Your task to perform on an android device: turn off priority inbox in the gmail app Image 0: 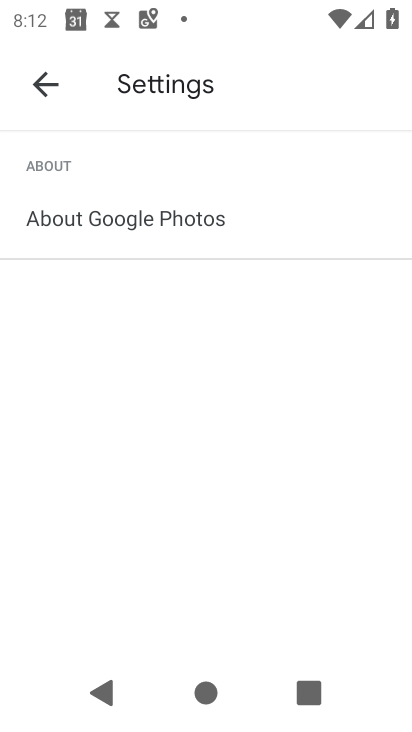
Step 0: press home button
Your task to perform on an android device: turn off priority inbox in the gmail app Image 1: 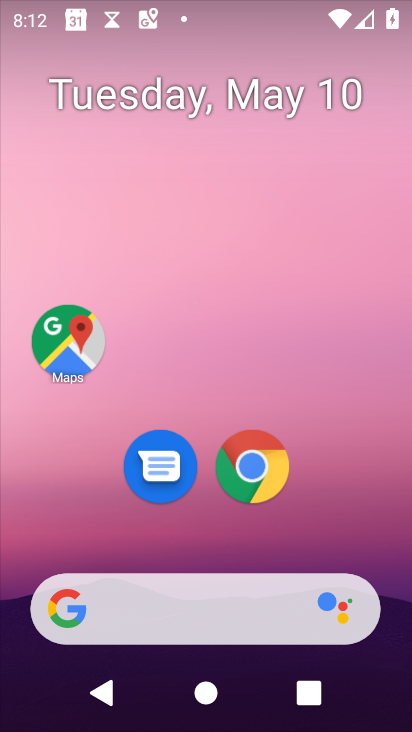
Step 1: drag from (219, 555) to (238, 72)
Your task to perform on an android device: turn off priority inbox in the gmail app Image 2: 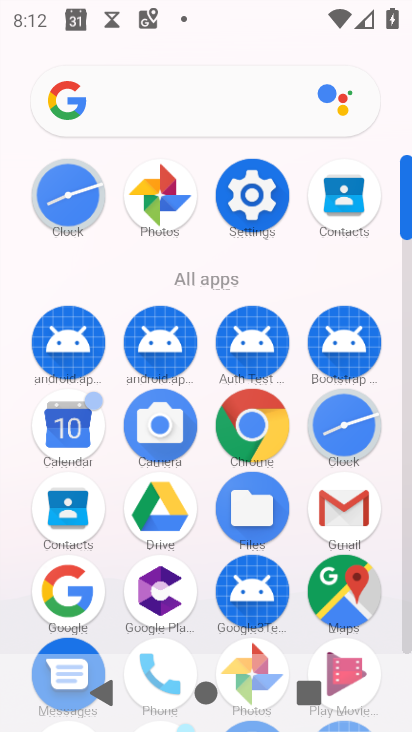
Step 2: click (352, 517)
Your task to perform on an android device: turn off priority inbox in the gmail app Image 3: 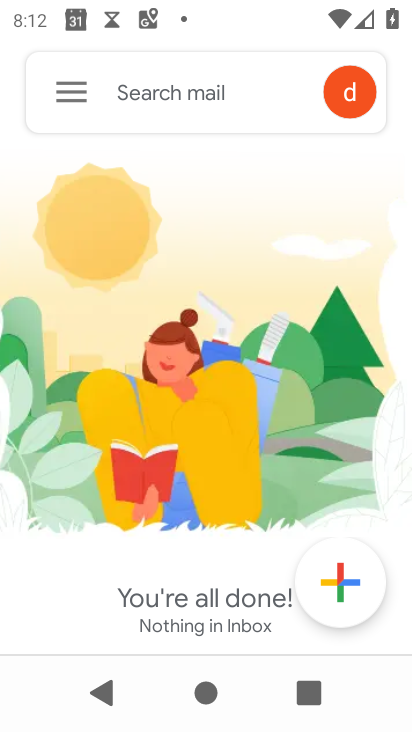
Step 3: click (62, 87)
Your task to perform on an android device: turn off priority inbox in the gmail app Image 4: 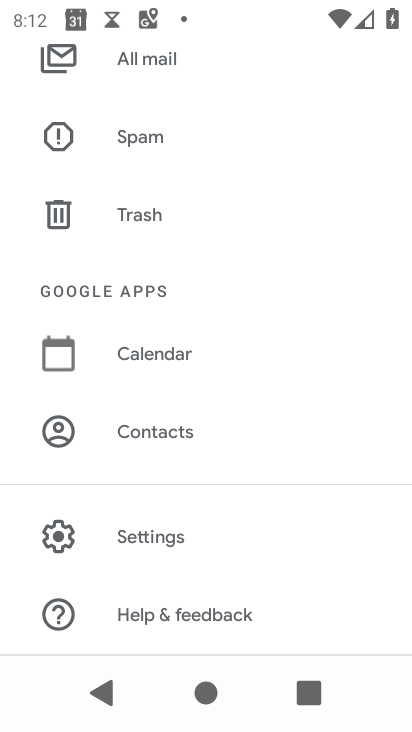
Step 4: click (136, 529)
Your task to perform on an android device: turn off priority inbox in the gmail app Image 5: 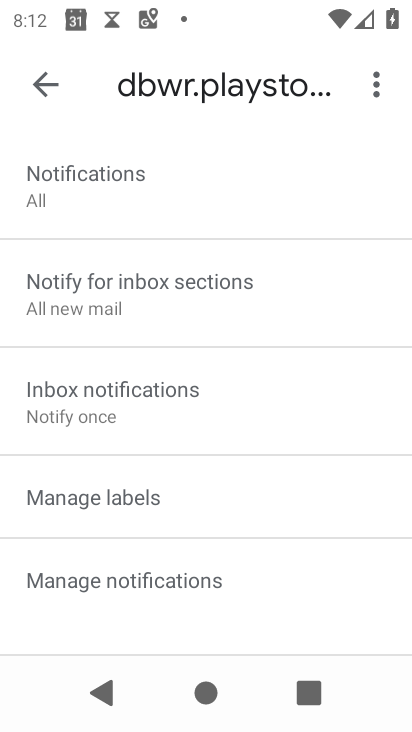
Step 5: drag from (217, 244) to (267, 367)
Your task to perform on an android device: turn off priority inbox in the gmail app Image 6: 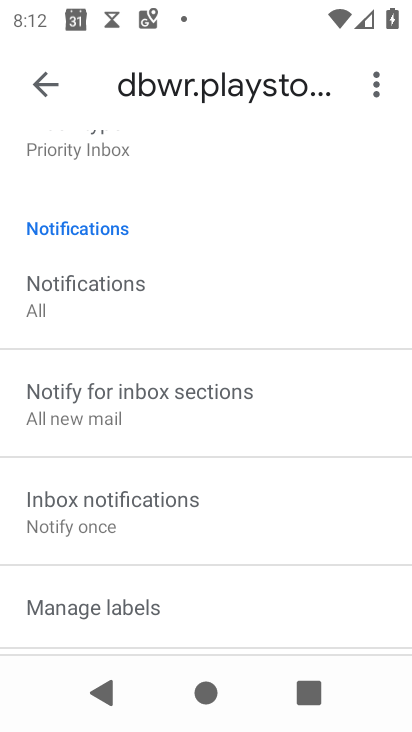
Step 6: drag from (249, 270) to (303, 392)
Your task to perform on an android device: turn off priority inbox in the gmail app Image 7: 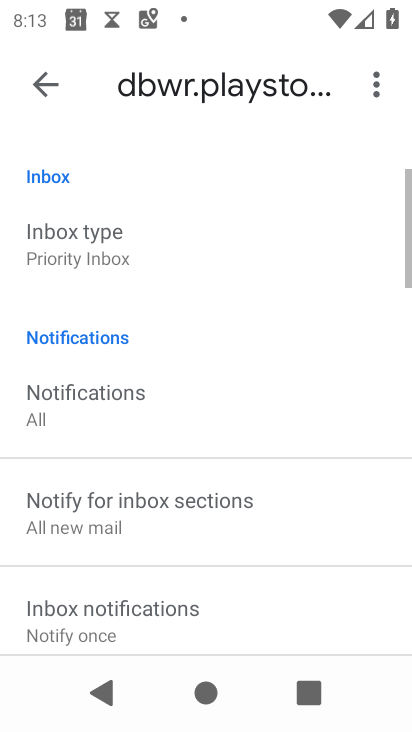
Step 7: click (231, 248)
Your task to perform on an android device: turn off priority inbox in the gmail app Image 8: 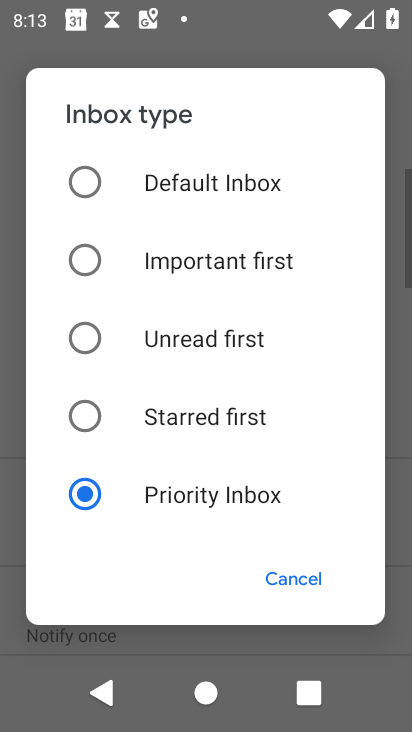
Step 8: click (254, 187)
Your task to perform on an android device: turn off priority inbox in the gmail app Image 9: 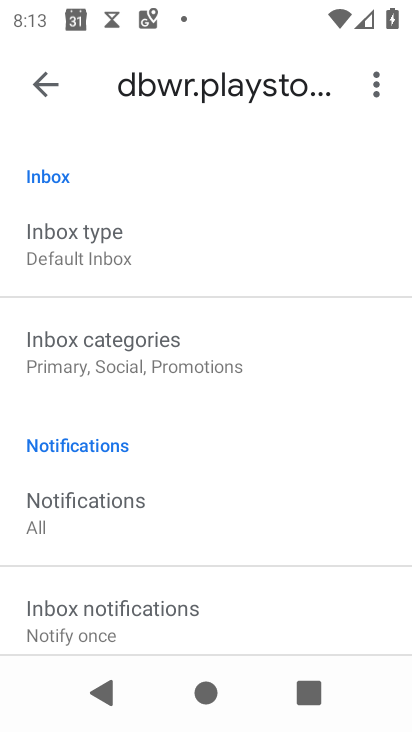
Step 9: task complete